Your task to perform on an android device: Show me recent news Image 0: 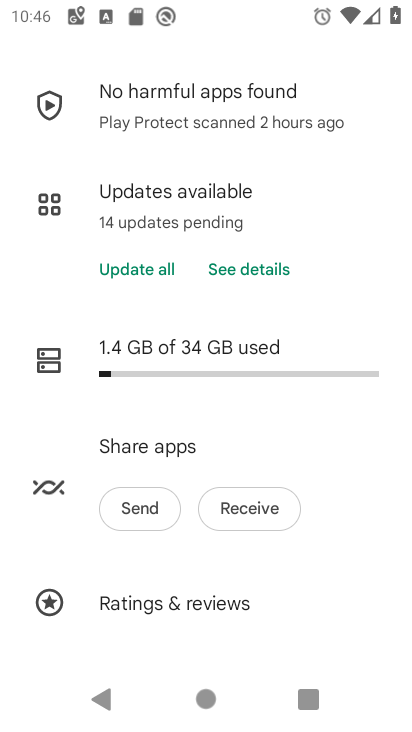
Step 0: press home button
Your task to perform on an android device: Show me recent news Image 1: 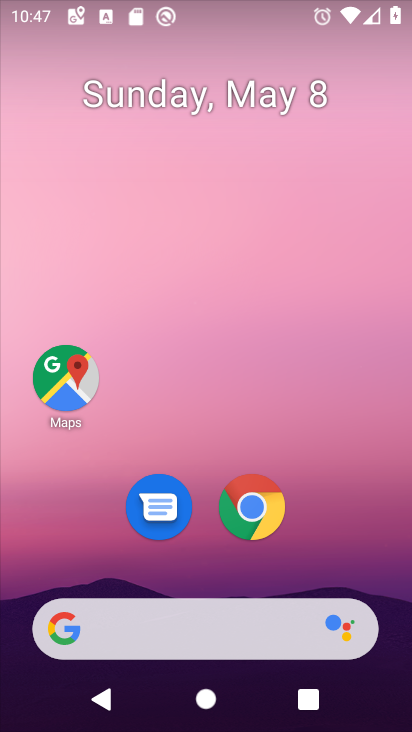
Step 1: drag from (251, 686) to (333, 117)
Your task to perform on an android device: Show me recent news Image 2: 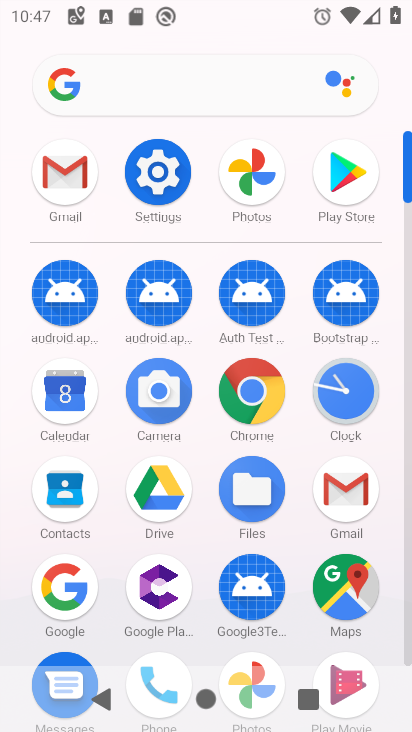
Step 2: click (241, 662)
Your task to perform on an android device: Show me recent news Image 3: 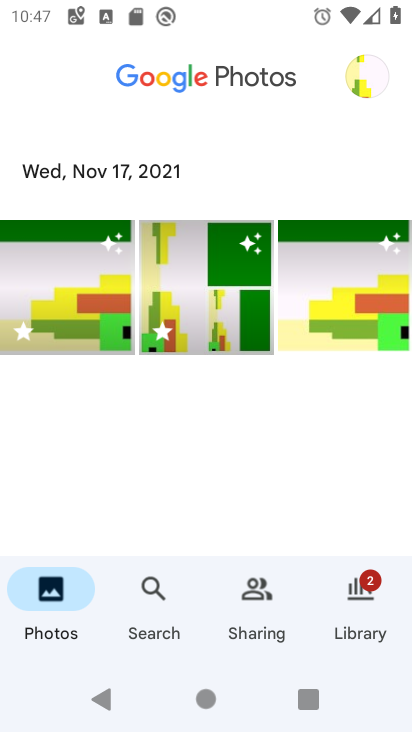
Step 3: task complete